Your task to perform on an android device: turn smart compose on in the gmail app Image 0: 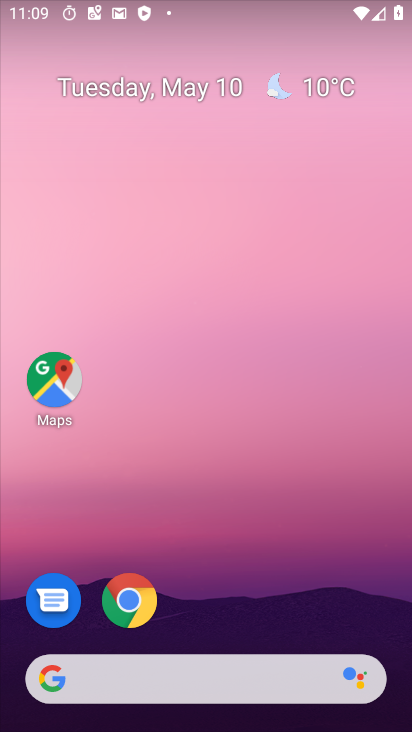
Step 0: drag from (224, 561) to (193, 43)
Your task to perform on an android device: turn smart compose on in the gmail app Image 1: 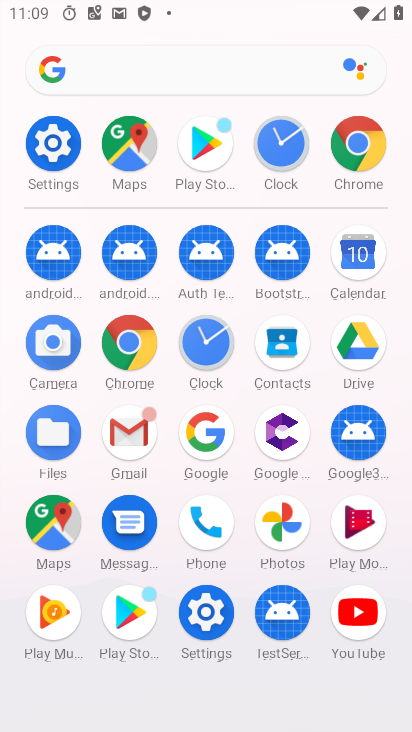
Step 1: drag from (13, 551) to (15, 293)
Your task to perform on an android device: turn smart compose on in the gmail app Image 2: 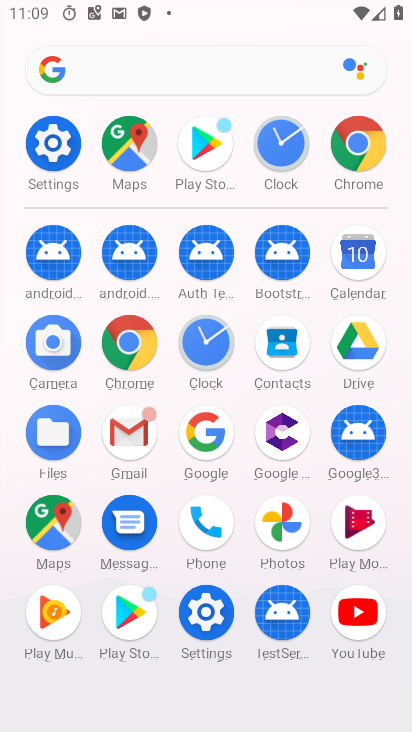
Step 2: click (125, 428)
Your task to perform on an android device: turn smart compose on in the gmail app Image 3: 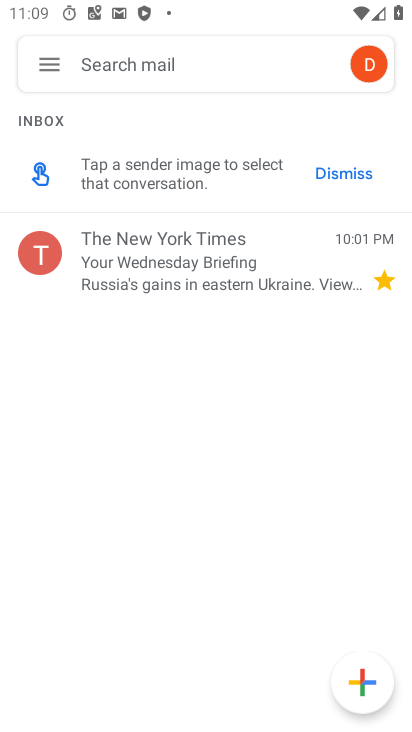
Step 3: click (37, 58)
Your task to perform on an android device: turn smart compose on in the gmail app Image 4: 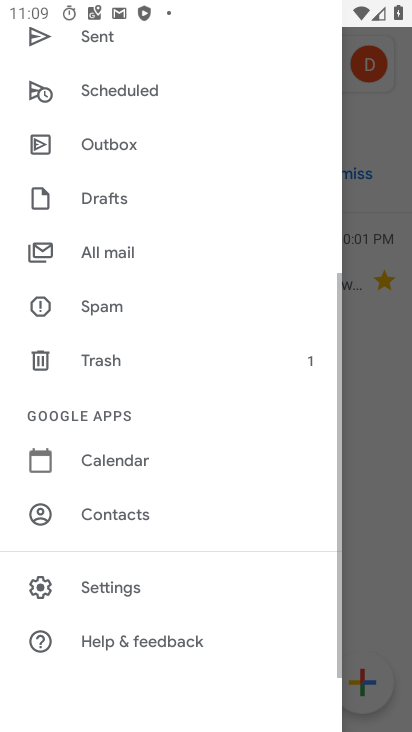
Step 4: click (132, 588)
Your task to perform on an android device: turn smart compose on in the gmail app Image 5: 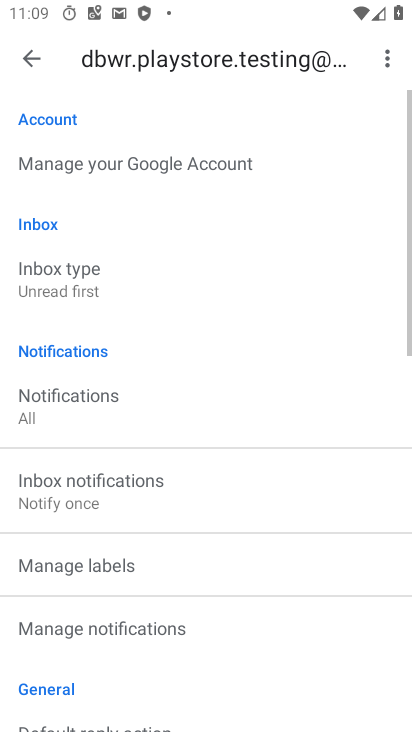
Step 5: task complete